Your task to perform on an android device: Open Google Maps and go to "Timeline" Image 0: 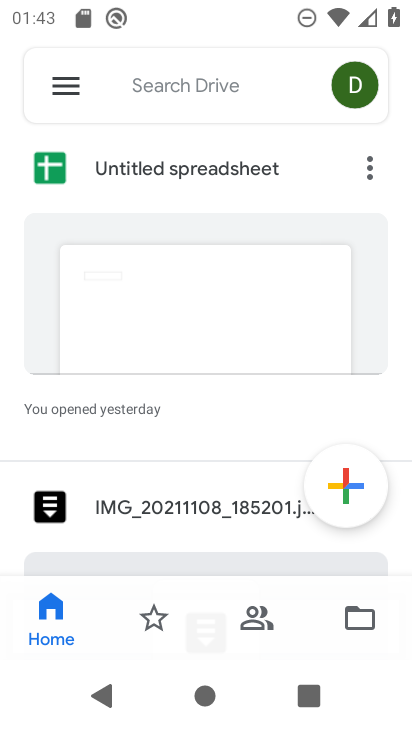
Step 0: press home button
Your task to perform on an android device: Open Google Maps and go to "Timeline" Image 1: 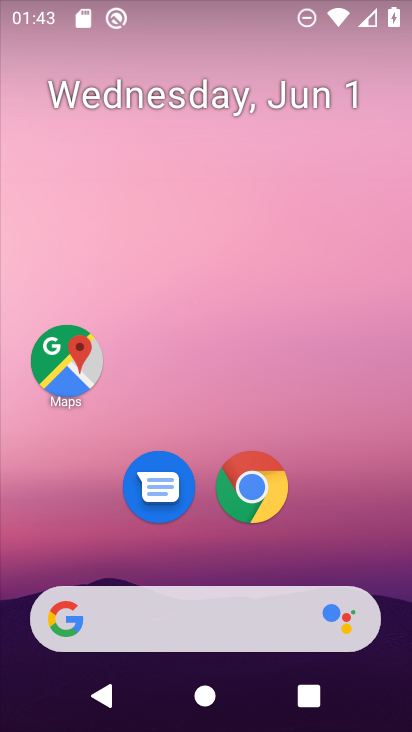
Step 1: click (78, 359)
Your task to perform on an android device: Open Google Maps and go to "Timeline" Image 2: 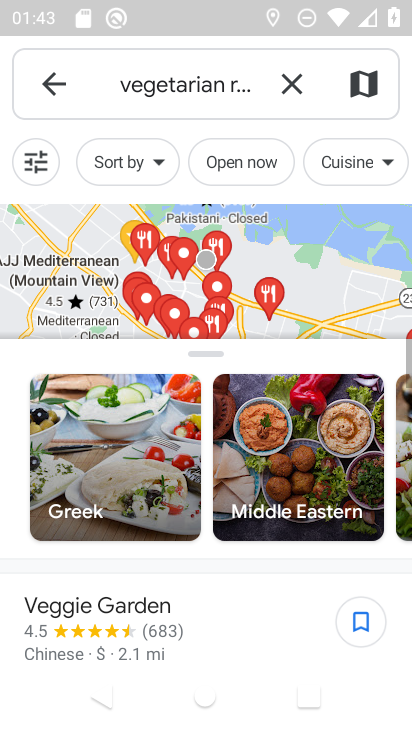
Step 2: click (289, 80)
Your task to perform on an android device: Open Google Maps and go to "Timeline" Image 3: 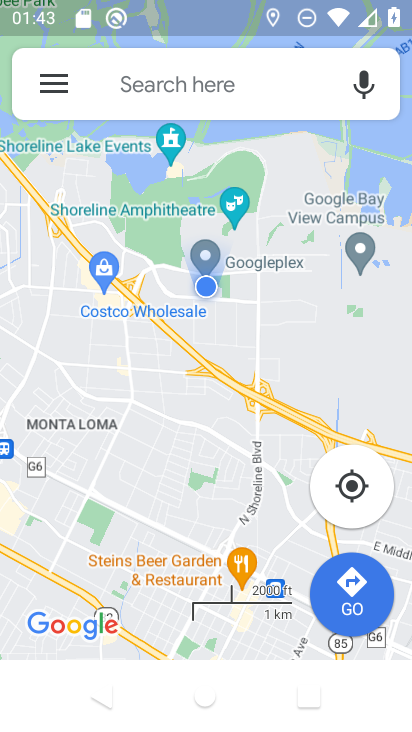
Step 3: click (43, 77)
Your task to perform on an android device: Open Google Maps and go to "Timeline" Image 4: 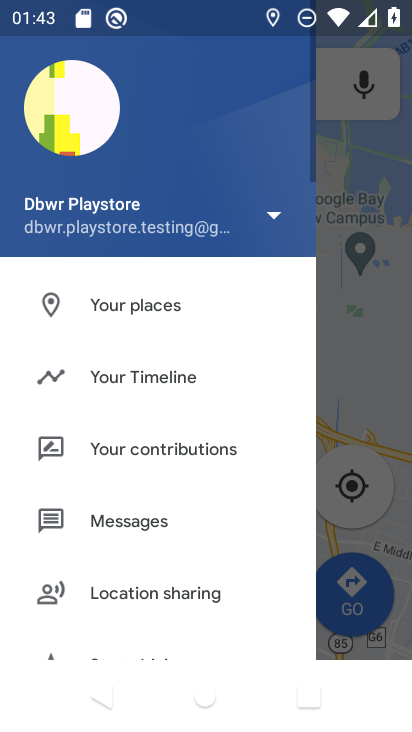
Step 4: click (150, 378)
Your task to perform on an android device: Open Google Maps and go to "Timeline" Image 5: 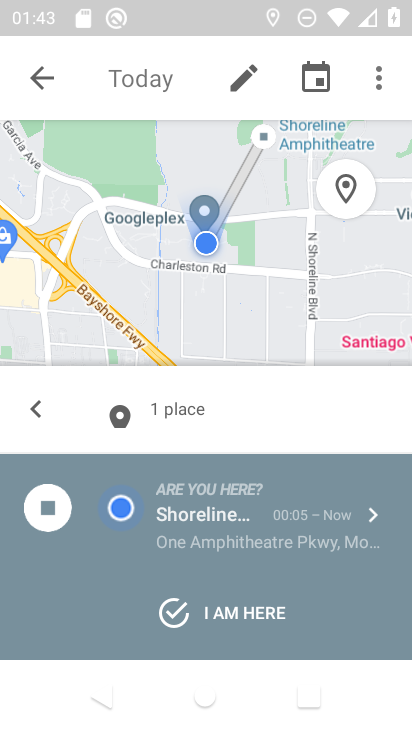
Step 5: task complete